Your task to perform on an android device: Go to ESPN.com Image 0: 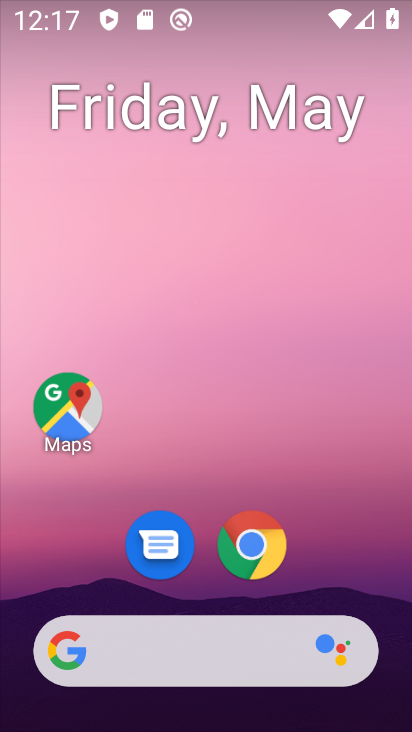
Step 0: click (260, 557)
Your task to perform on an android device: Go to ESPN.com Image 1: 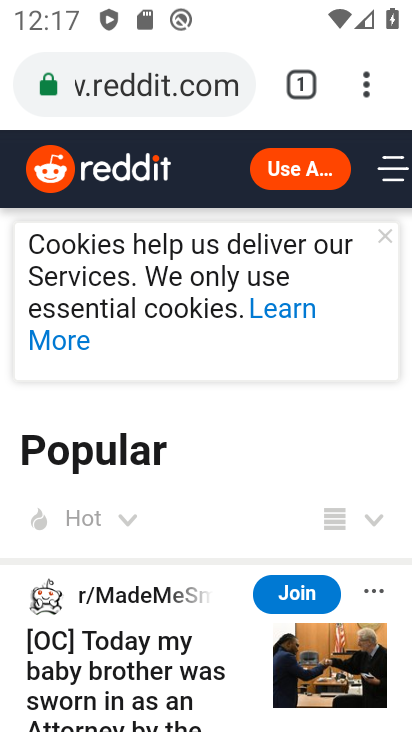
Step 1: press back button
Your task to perform on an android device: Go to ESPN.com Image 2: 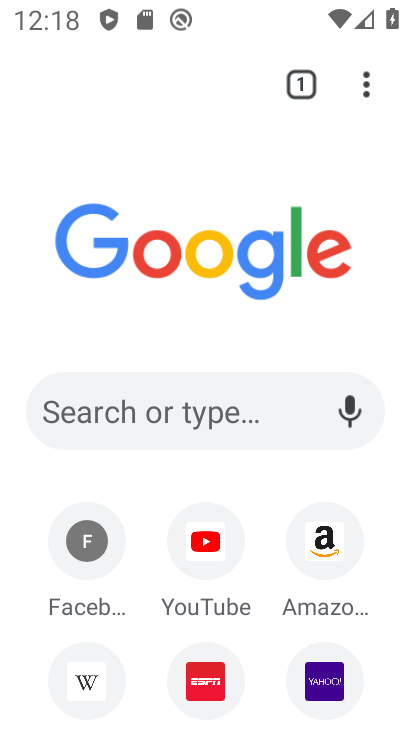
Step 2: drag from (250, 664) to (256, 316)
Your task to perform on an android device: Go to ESPN.com Image 3: 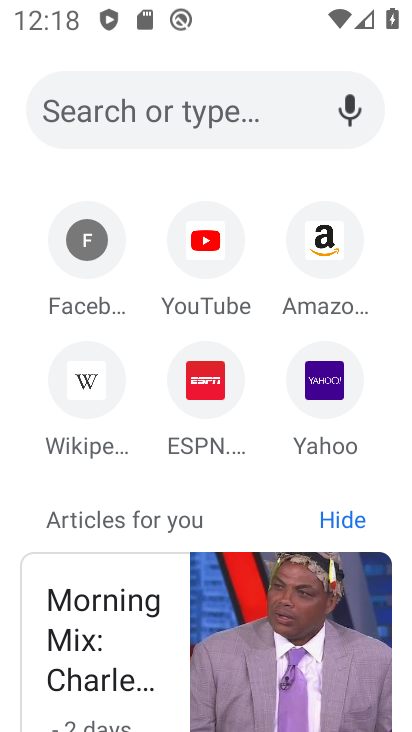
Step 3: click (202, 391)
Your task to perform on an android device: Go to ESPN.com Image 4: 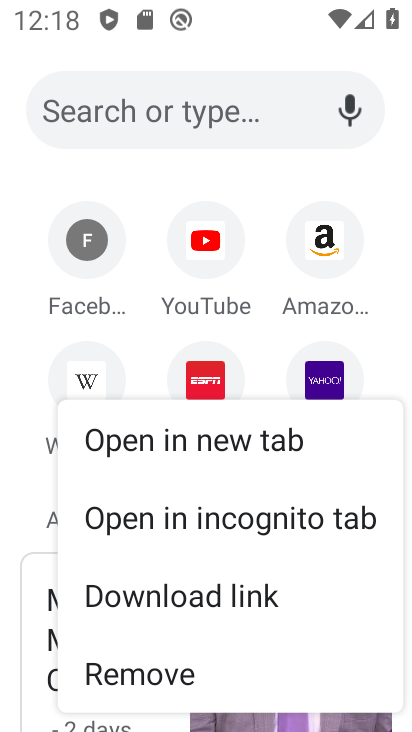
Step 4: click (202, 378)
Your task to perform on an android device: Go to ESPN.com Image 5: 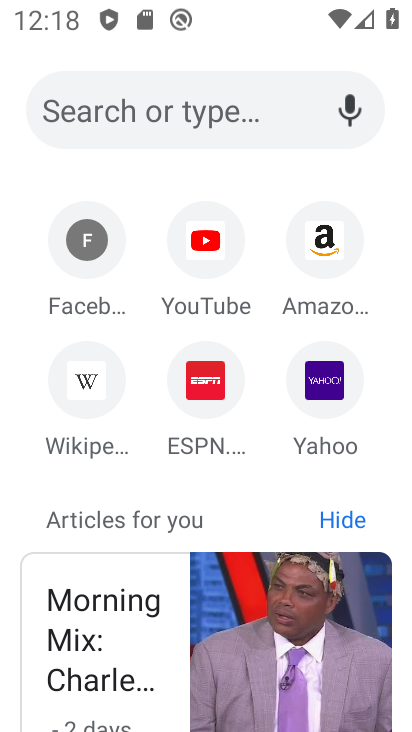
Step 5: click (202, 378)
Your task to perform on an android device: Go to ESPN.com Image 6: 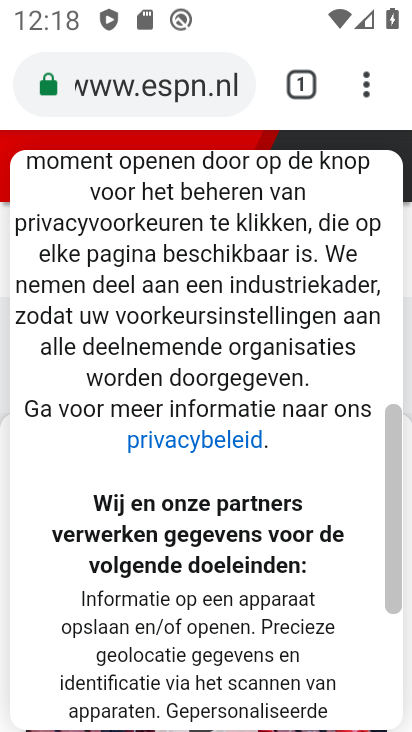
Step 6: task complete